Your task to perform on an android device: allow cookies in the chrome app Image 0: 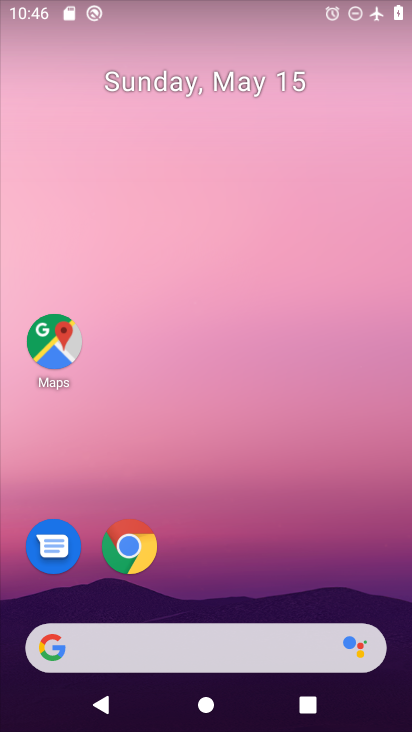
Step 0: click (122, 543)
Your task to perform on an android device: allow cookies in the chrome app Image 1: 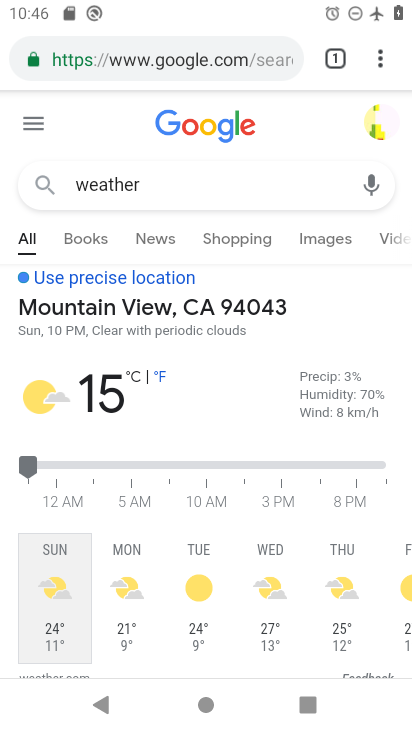
Step 1: click (386, 55)
Your task to perform on an android device: allow cookies in the chrome app Image 2: 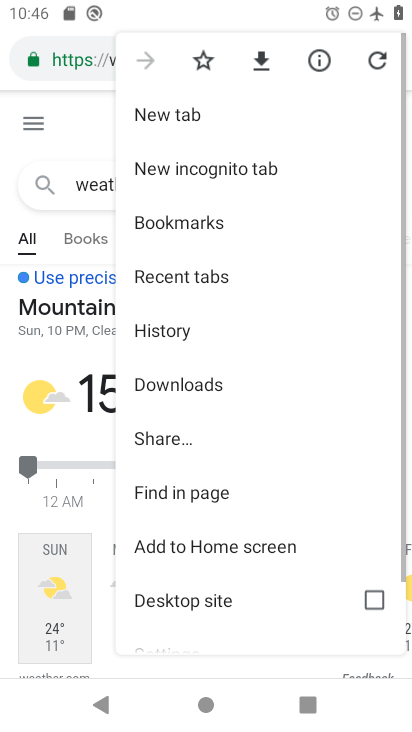
Step 2: drag from (265, 535) to (386, 186)
Your task to perform on an android device: allow cookies in the chrome app Image 3: 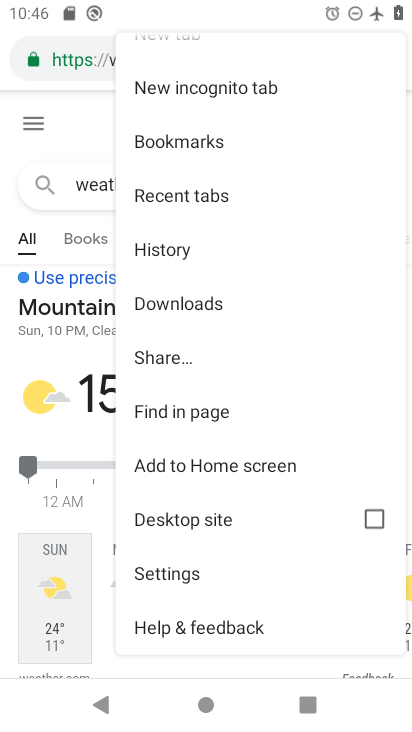
Step 3: click (184, 593)
Your task to perform on an android device: allow cookies in the chrome app Image 4: 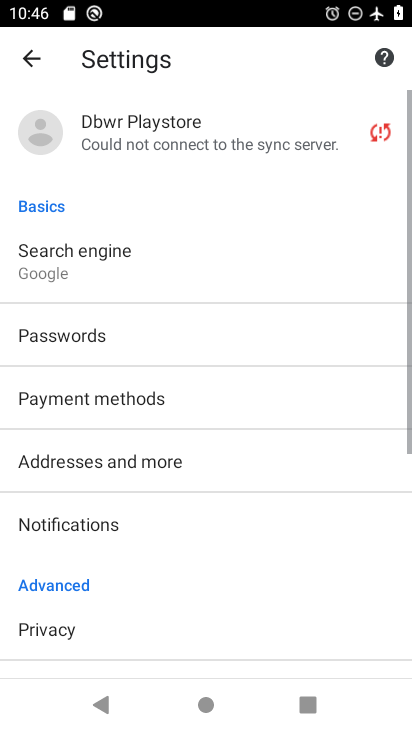
Step 4: drag from (191, 584) to (296, 250)
Your task to perform on an android device: allow cookies in the chrome app Image 5: 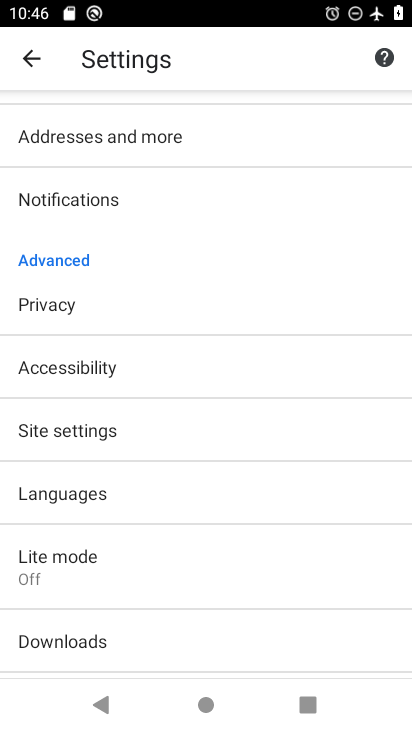
Step 5: click (86, 433)
Your task to perform on an android device: allow cookies in the chrome app Image 6: 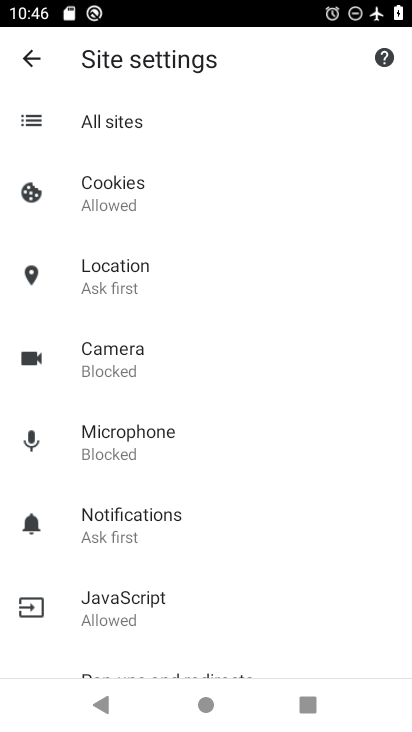
Step 6: drag from (225, 552) to (290, 627)
Your task to perform on an android device: allow cookies in the chrome app Image 7: 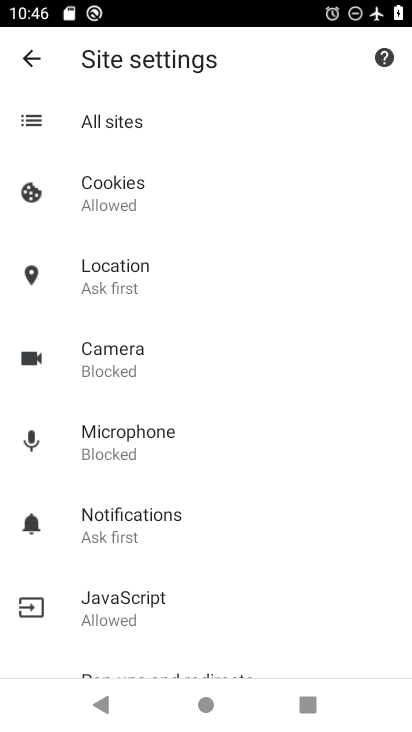
Step 7: click (155, 206)
Your task to perform on an android device: allow cookies in the chrome app Image 8: 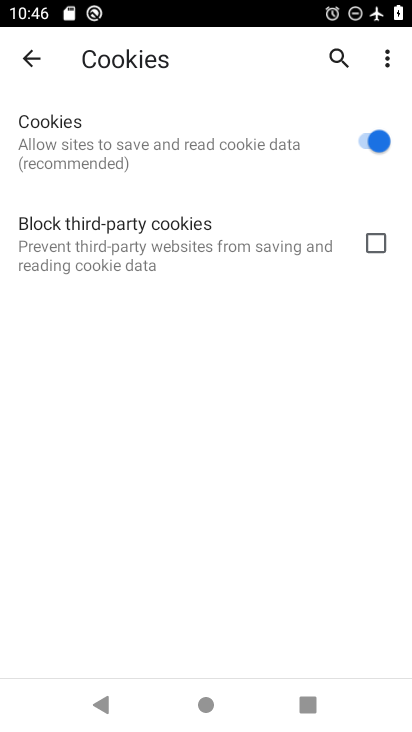
Step 8: task complete